Your task to perform on an android device: set the stopwatch Image 0: 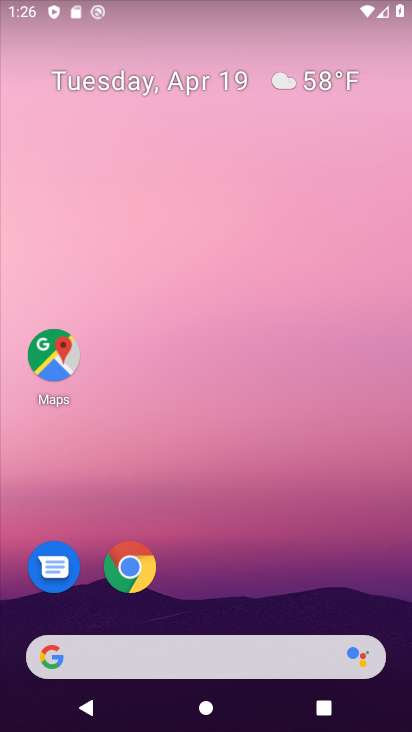
Step 0: drag from (393, 598) to (330, 28)
Your task to perform on an android device: set the stopwatch Image 1: 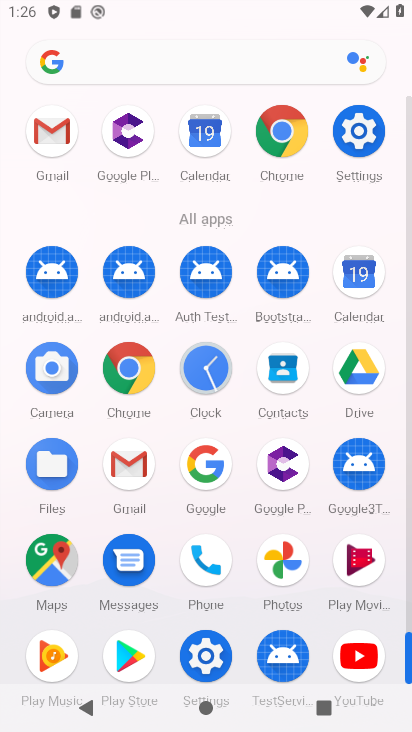
Step 1: drag from (406, 647) to (405, 703)
Your task to perform on an android device: set the stopwatch Image 2: 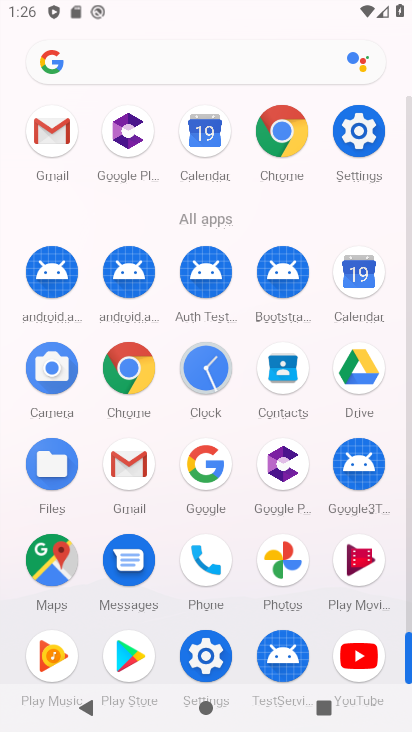
Step 2: click (201, 366)
Your task to perform on an android device: set the stopwatch Image 3: 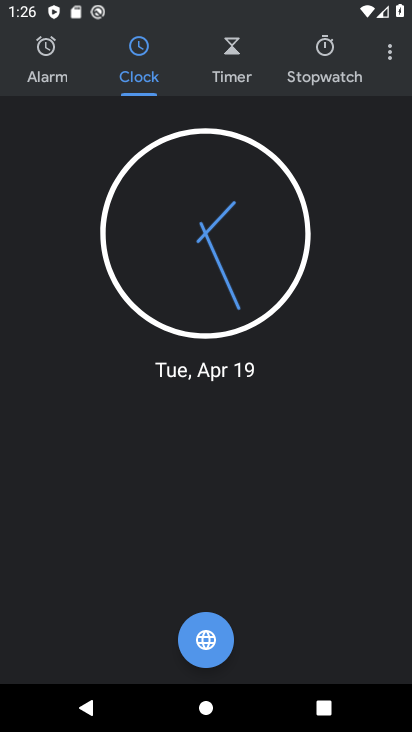
Step 3: click (323, 48)
Your task to perform on an android device: set the stopwatch Image 4: 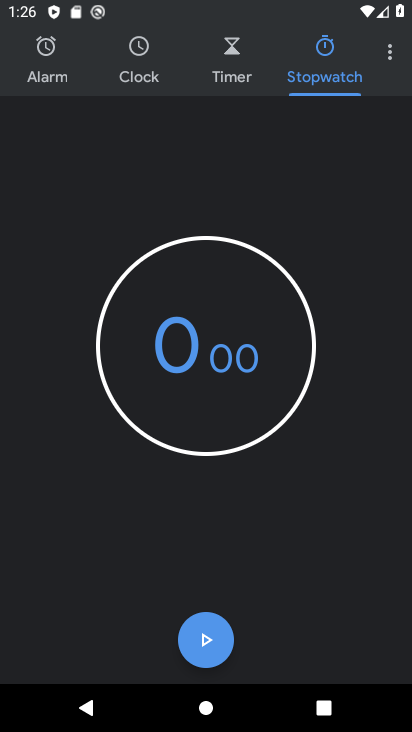
Step 4: task complete